Your task to perform on an android device: Set an alarm for 7am Image 0: 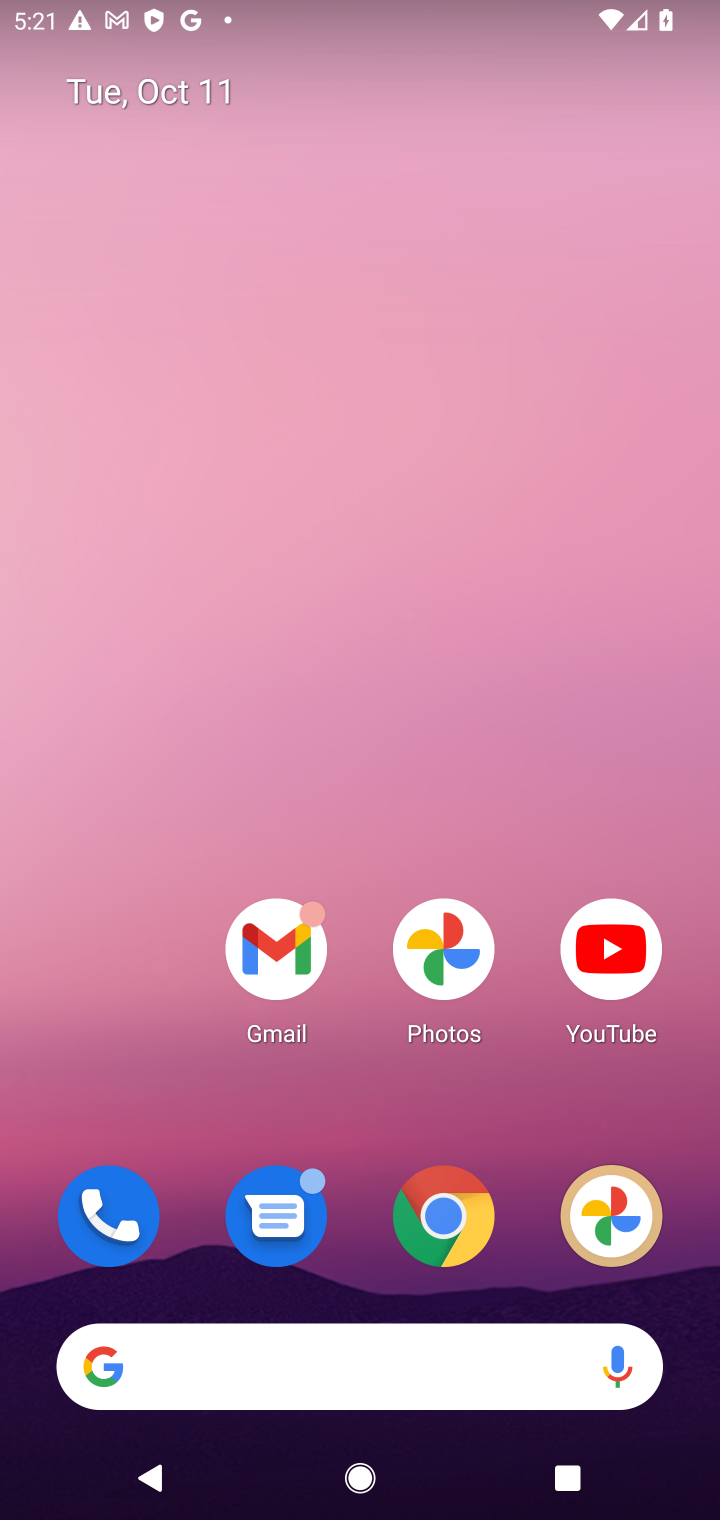
Step 0: drag from (414, 1299) to (295, 419)
Your task to perform on an android device: Set an alarm for 7am Image 1: 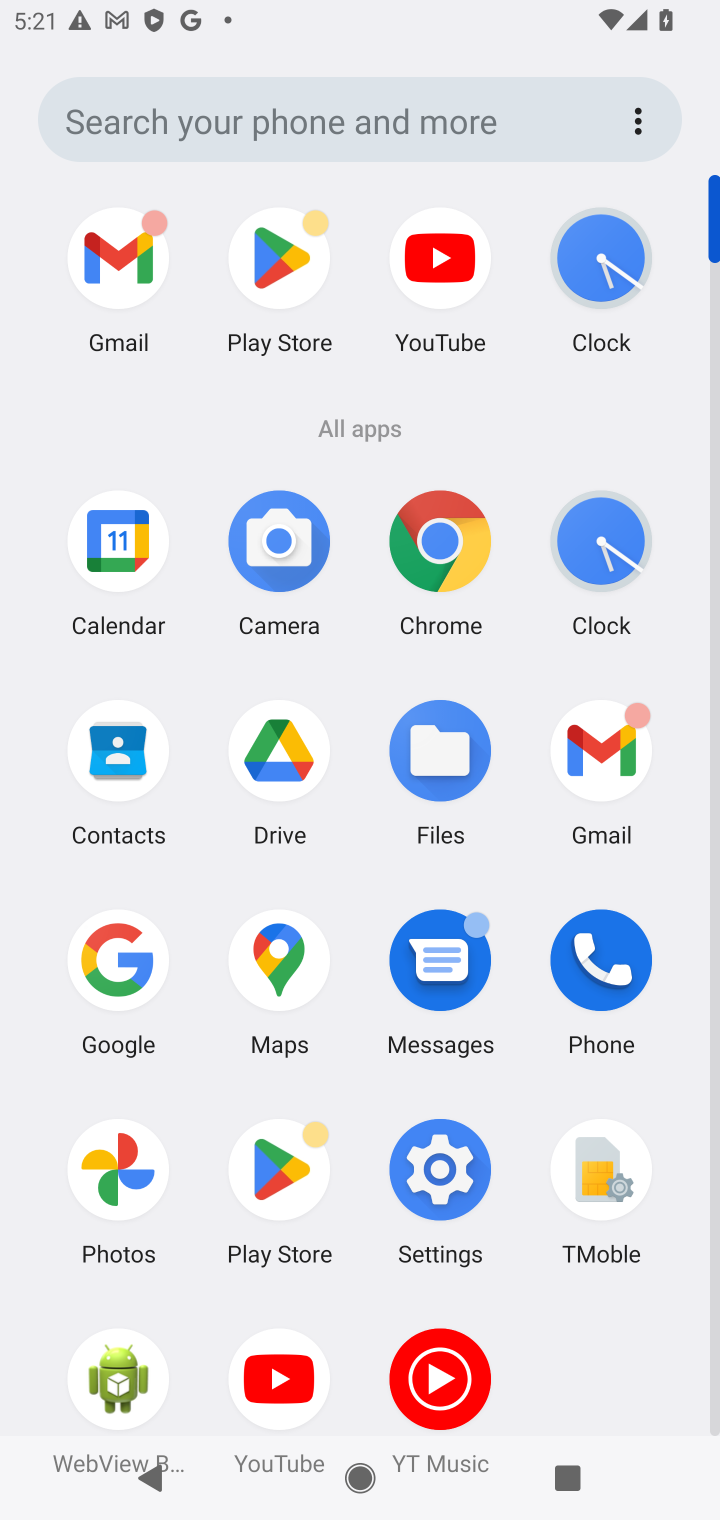
Step 1: click (584, 581)
Your task to perform on an android device: Set an alarm for 7am Image 2: 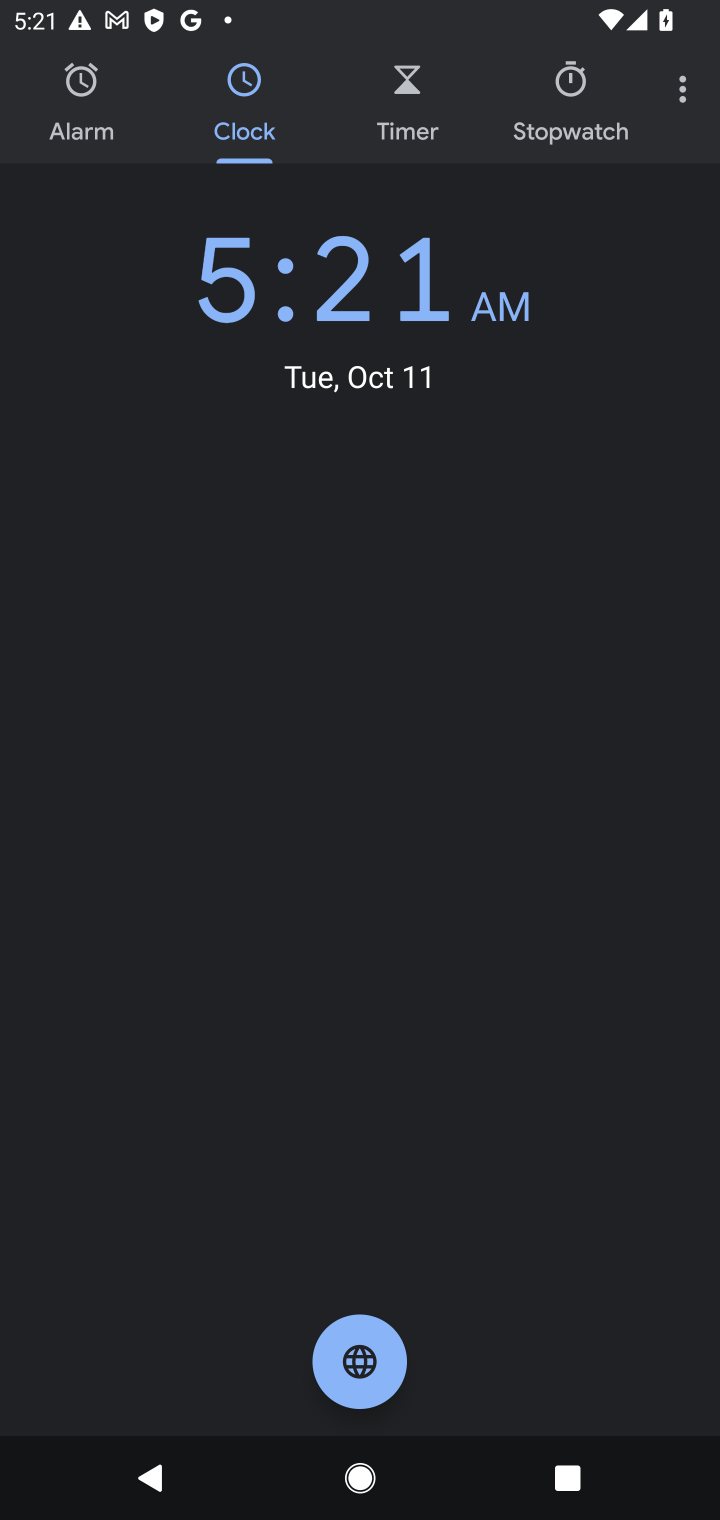
Step 2: click (102, 129)
Your task to perform on an android device: Set an alarm for 7am Image 3: 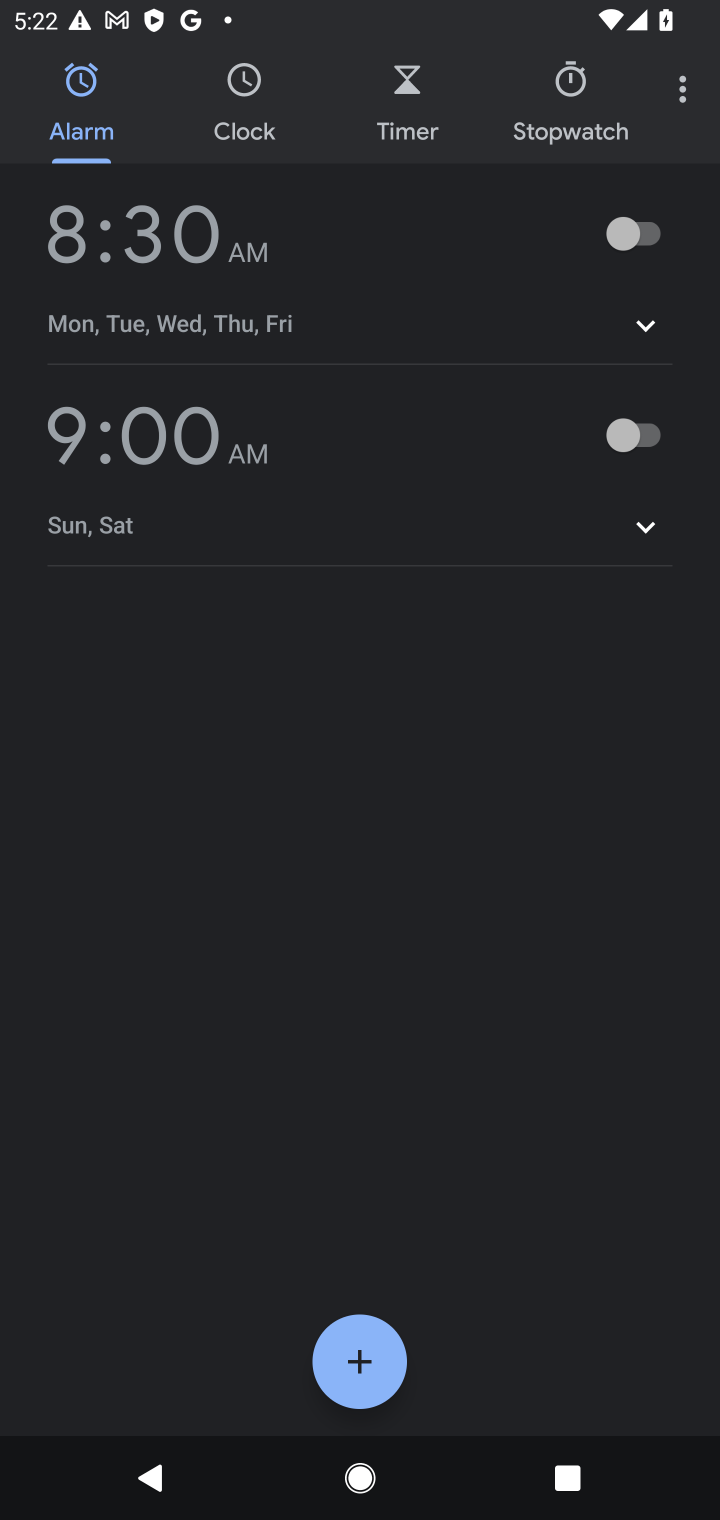
Step 3: click (379, 1352)
Your task to perform on an android device: Set an alarm for 7am Image 4: 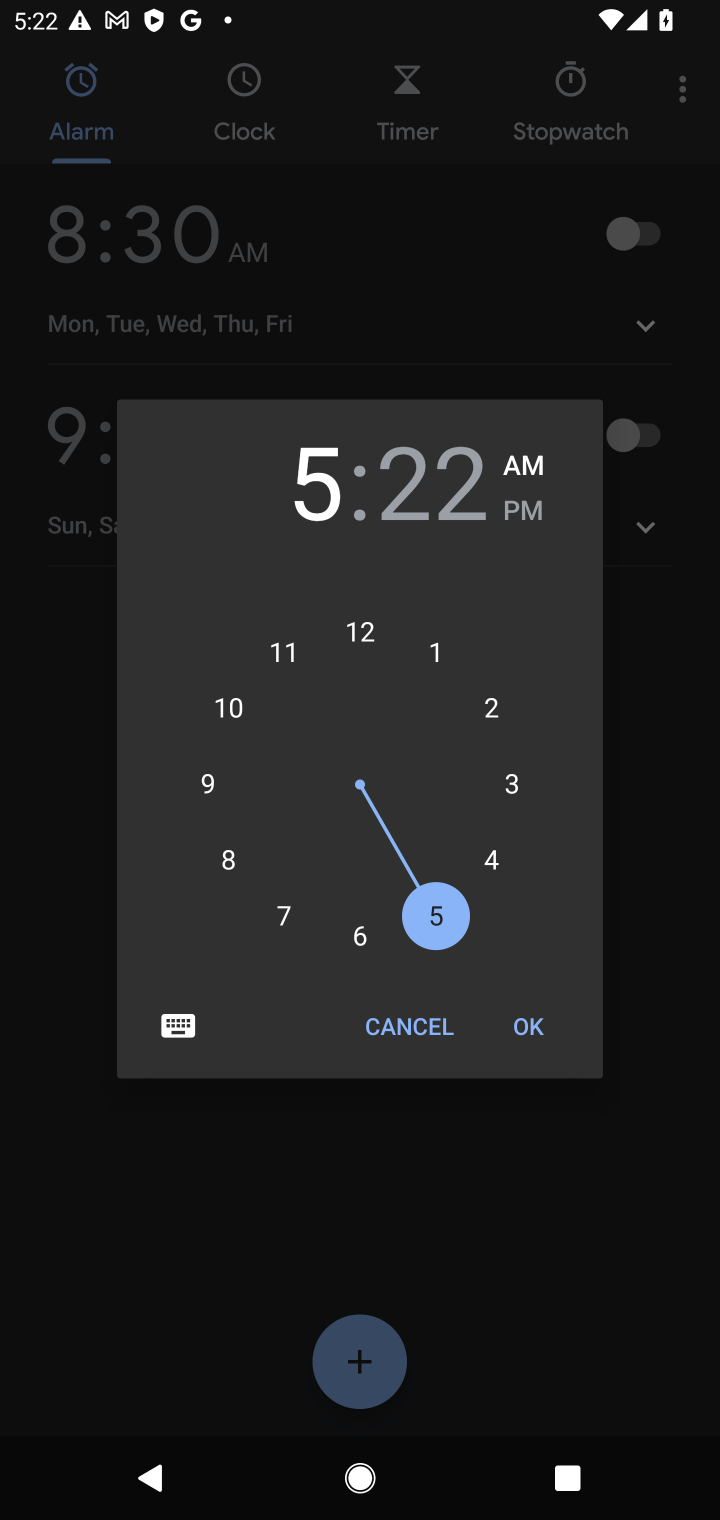
Step 4: click (289, 906)
Your task to perform on an android device: Set an alarm for 7am Image 5: 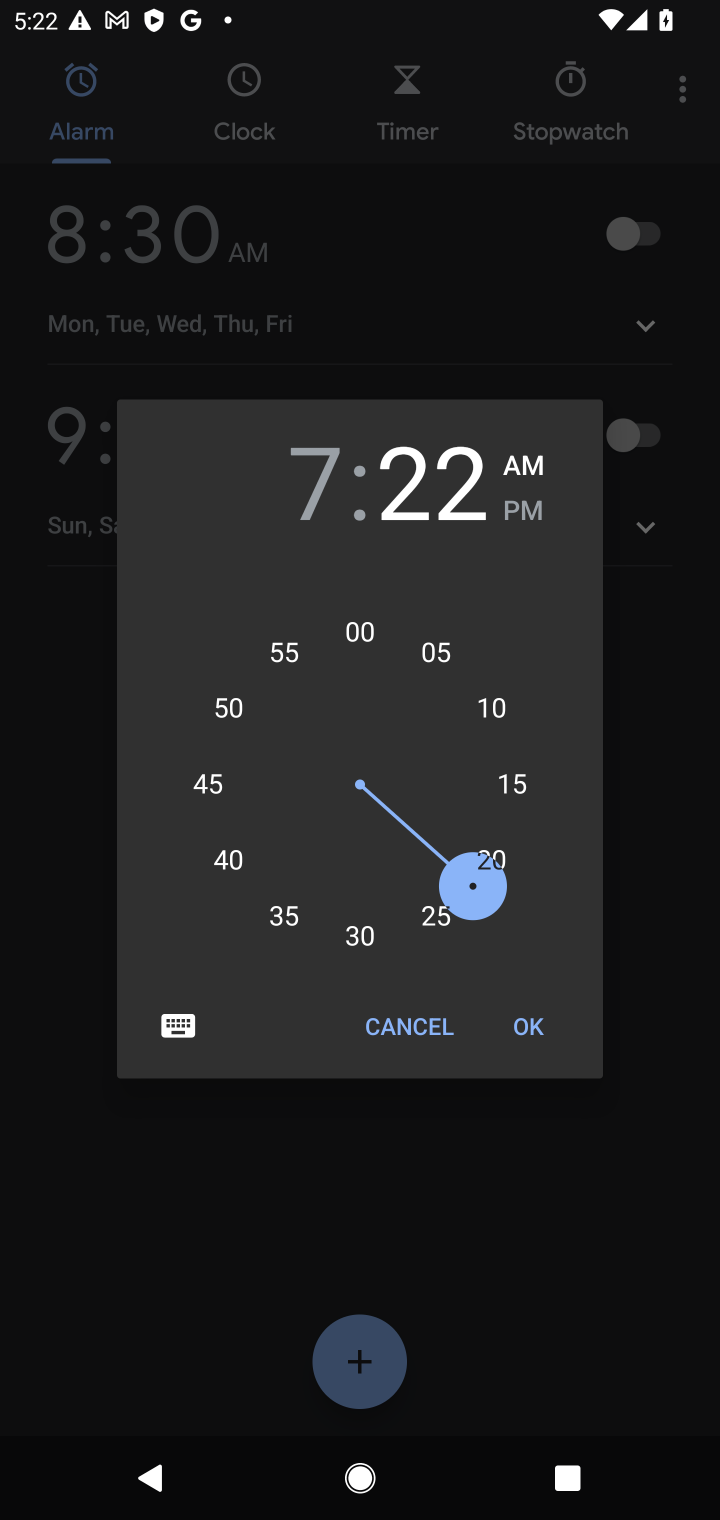
Step 5: click (350, 651)
Your task to perform on an android device: Set an alarm for 7am Image 6: 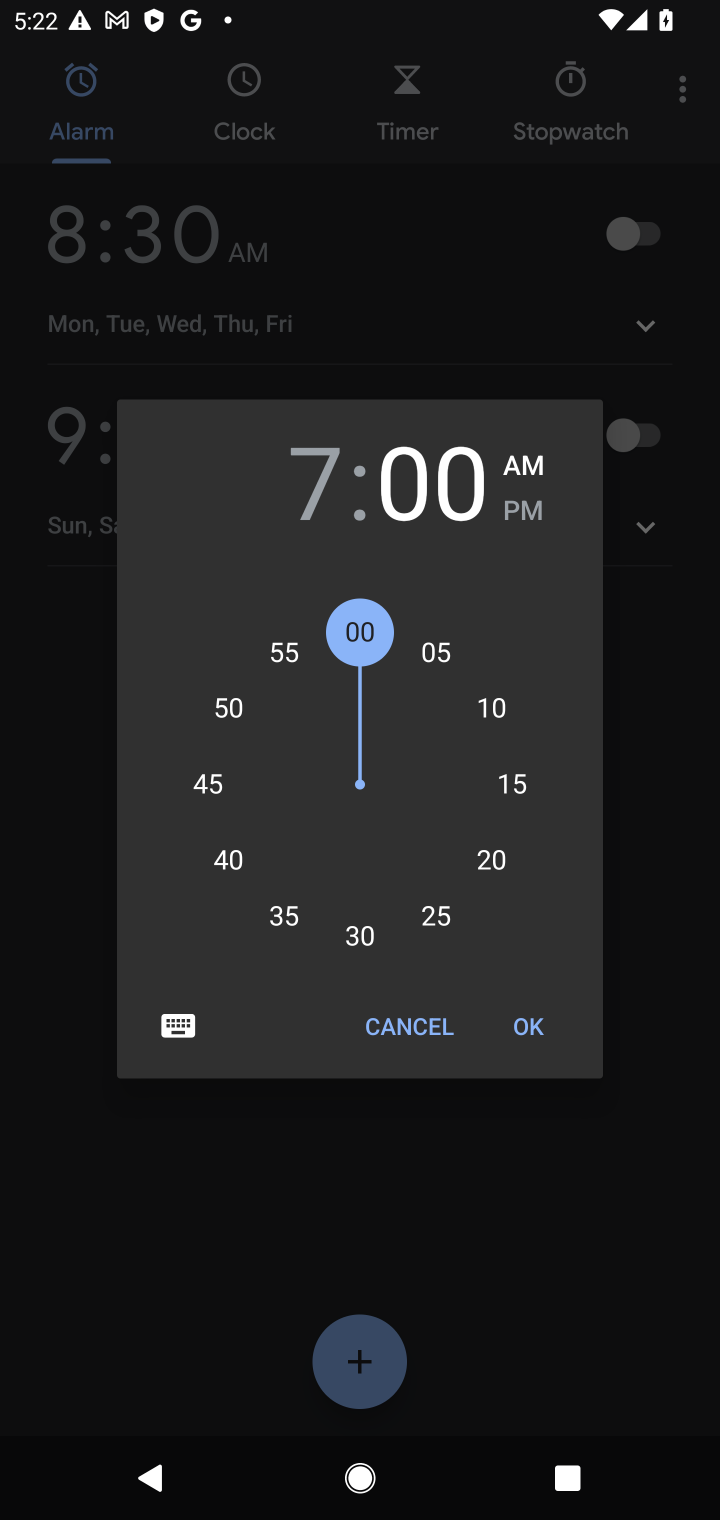
Step 6: click (529, 1050)
Your task to perform on an android device: Set an alarm for 7am Image 7: 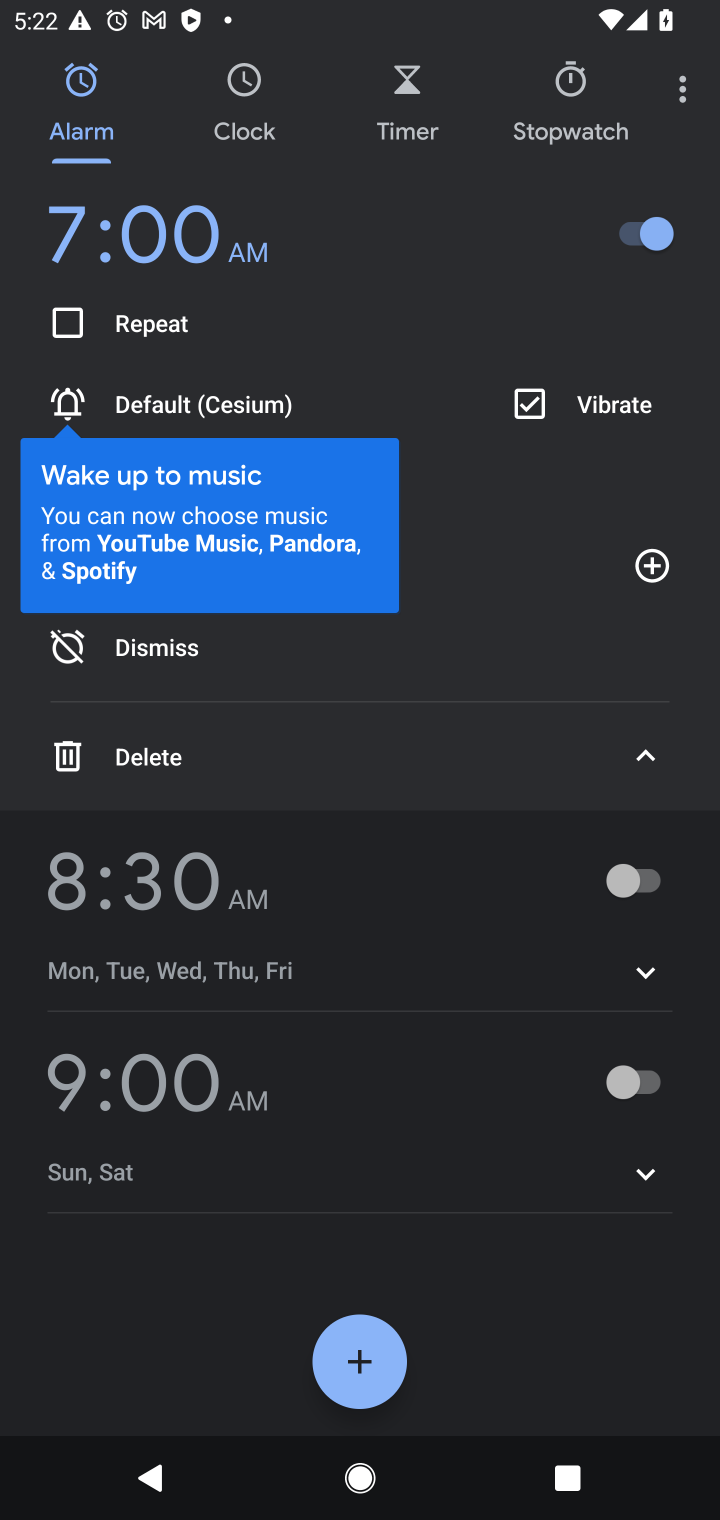
Step 7: task complete